Your task to perform on an android device: delete the emails in spam in the gmail app Image 0: 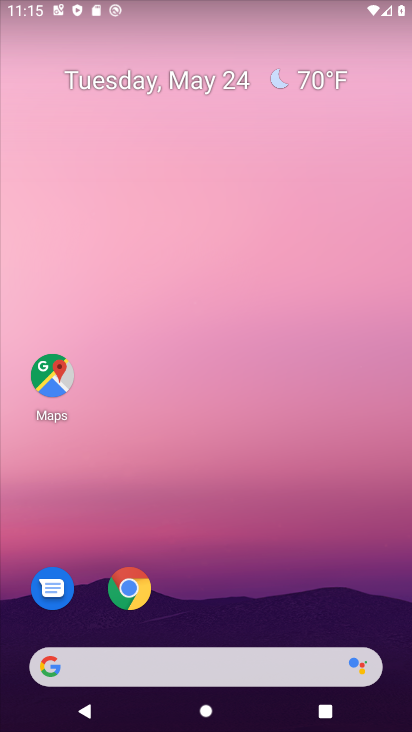
Step 0: press home button
Your task to perform on an android device: delete the emails in spam in the gmail app Image 1: 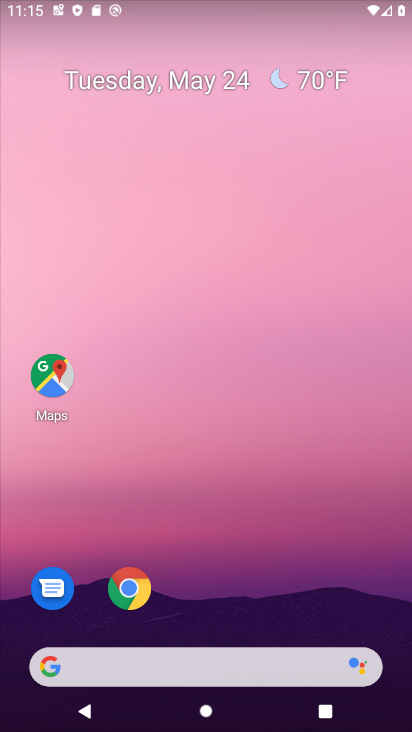
Step 1: drag from (218, 619) to (268, 81)
Your task to perform on an android device: delete the emails in spam in the gmail app Image 2: 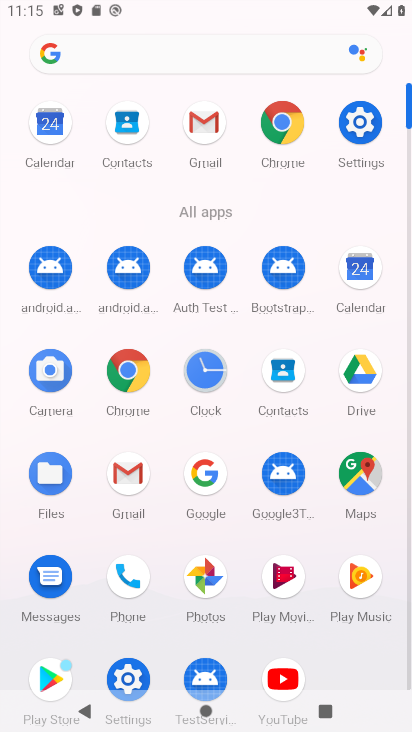
Step 2: click (129, 469)
Your task to perform on an android device: delete the emails in spam in the gmail app Image 3: 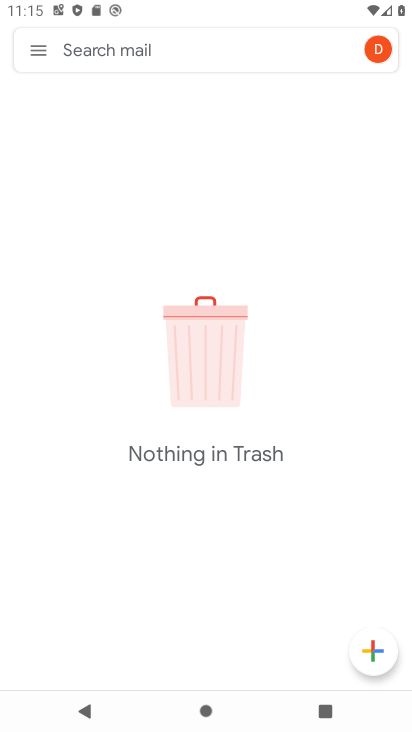
Step 3: click (28, 46)
Your task to perform on an android device: delete the emails in spam in the gmail app Image 4: 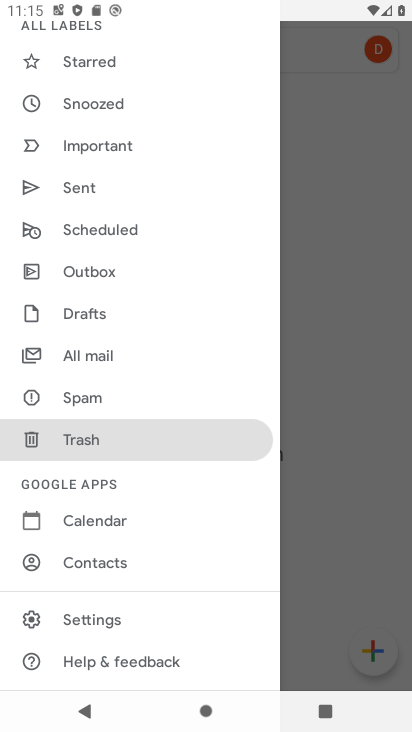
Step 4: click (111, 392)
Your task to perform on an android device: delete the emails in spam in the gmail app Image 5: 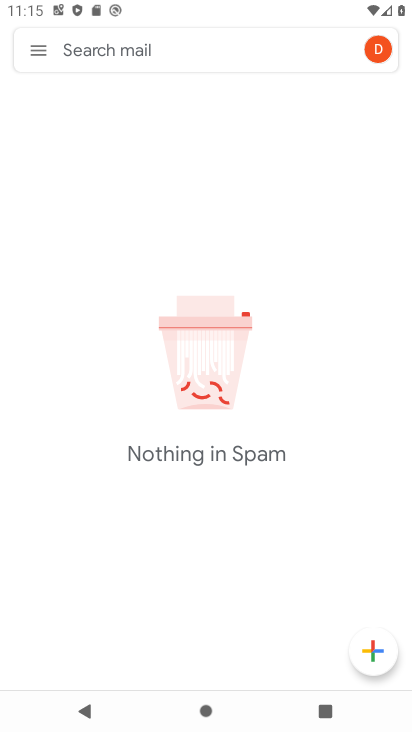
Step 5: task complete